Your task to perform on an android device: turn on improve location accuracy Image 0: 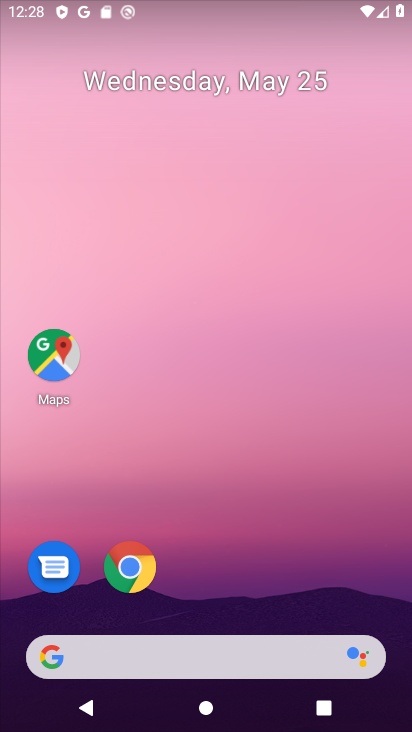
Step 0: drag from (225, 505) to (261, 138)
Your task to perform on an android device: turn on improve location accuracy Image 1: 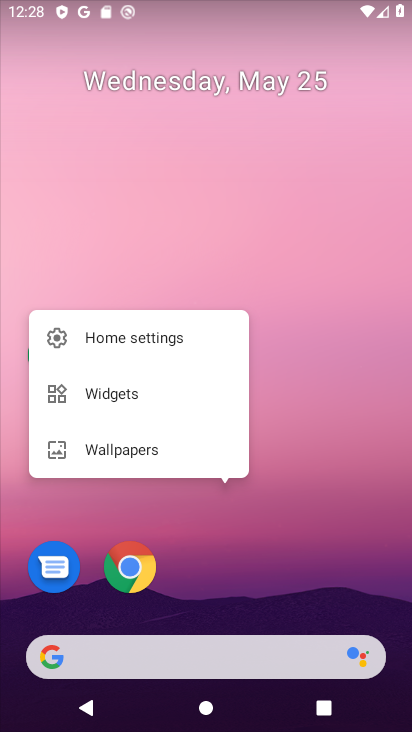
Step 1: drag from (272, 566) to (267, 36)
Your task to perform on an android device: turn on improve location accuracy Image 2: 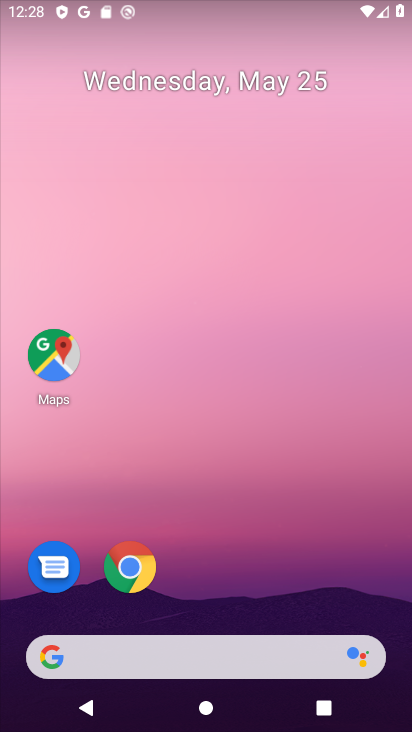
Step 2: drag from (223, 557) to (211, 8)
Your task to perform on an android device: turn on improve location accuracy Image 3: 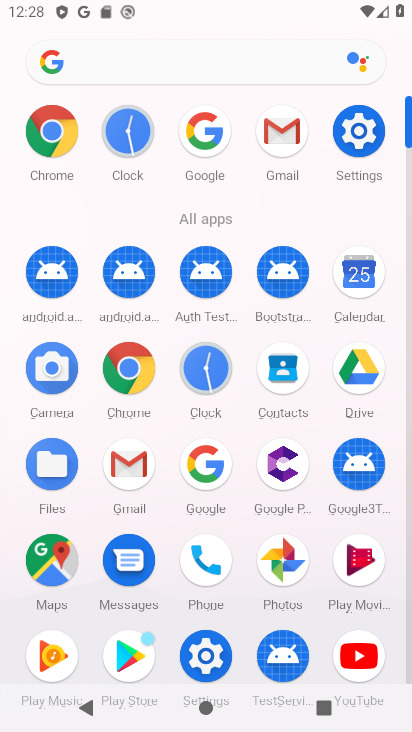
Step 3: click (206, 652)
Your task to perform on an android device: turn on improve location accuracy Image 4: 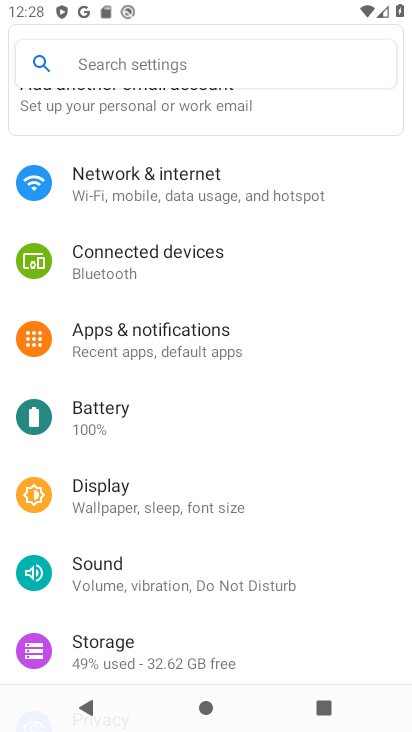
Step 4: drag from (171, 459) to (167, 364)
Your task to perform on an android device: turn on improve location accuracy Image 5: 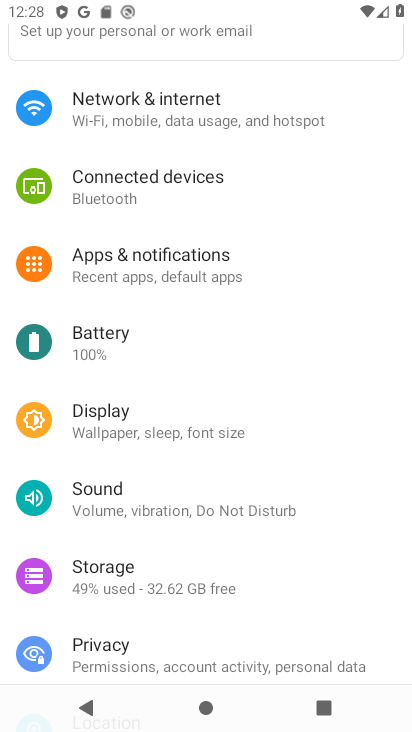
Step 5: drag from (161, 561) to (180, 461)
Your task to perform on an android device: turn on improve location accuracy Image 6: 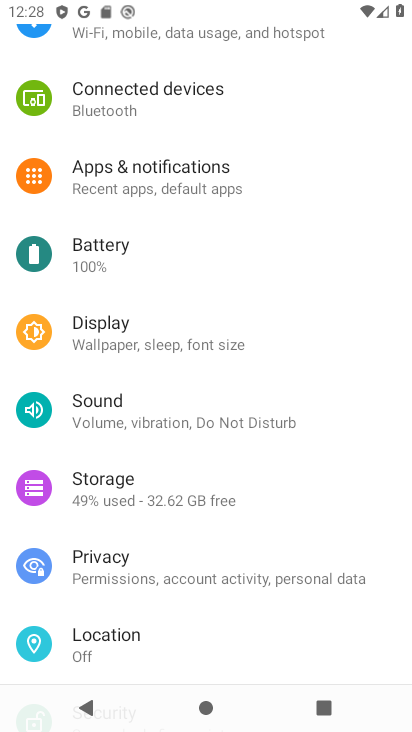
Step 6: drag from (154, 552) to (184, 469)
Your task to perform on an android device: turn on improve location accuracy Image 7: 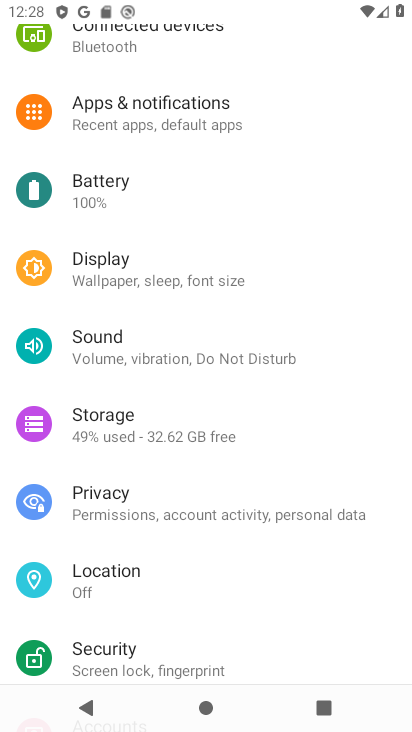
Step 7: click (108, 580)
Your task to perform on an android device: turn on improve location accuracy Image 8: 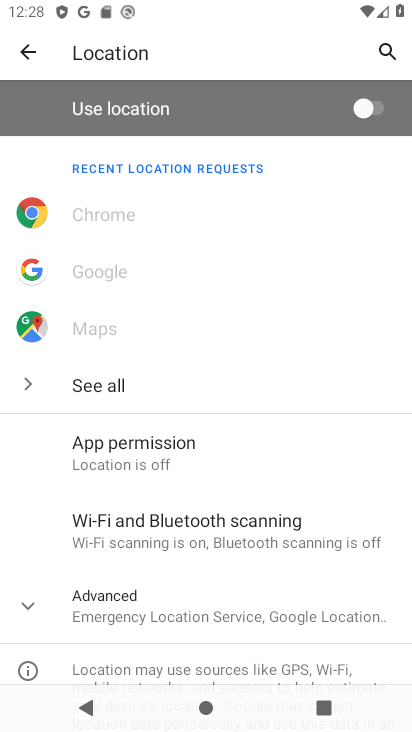
Step 8: click (130, 619)
Your task to perform on an android device: turn on improve location accuracy Image 9: 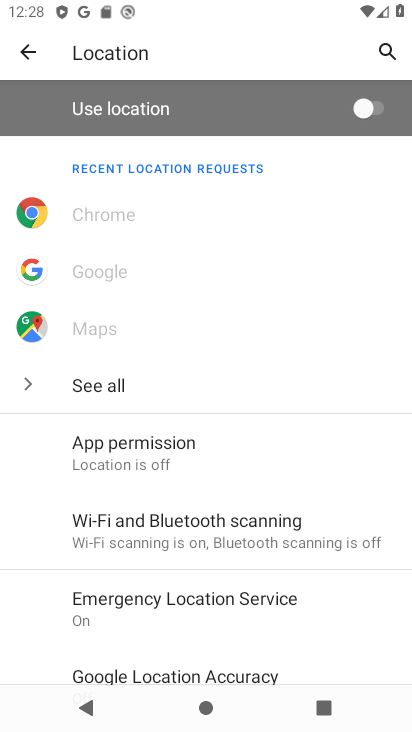
Step 9: drag from (157, 643) to (175, 548)
Your task to perform on an android device: turn on improve location accuracy Image 10: 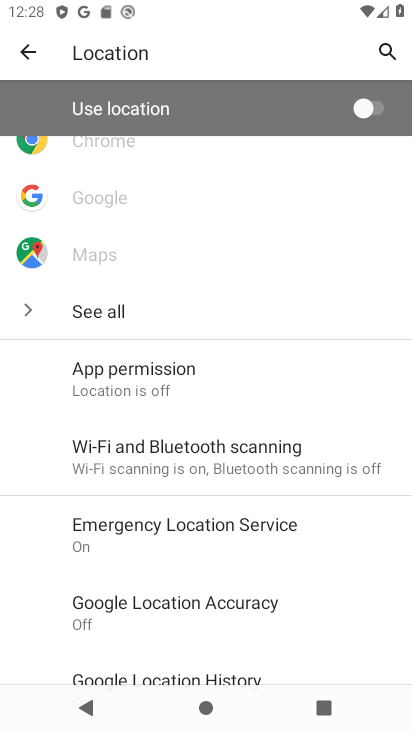
Step 10: click (185, 609)
Your task to perform on an android device: turn on improve location accuracy Image 11: 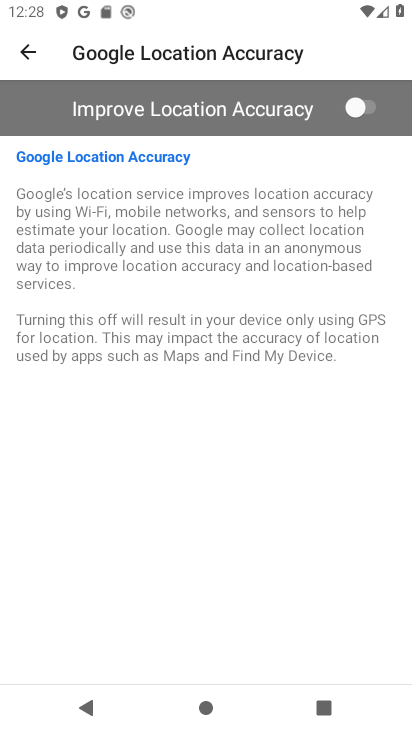
Step 11: click (359, 108)
Your task to perform on an android device: turn on improve location accuracy Image 12: 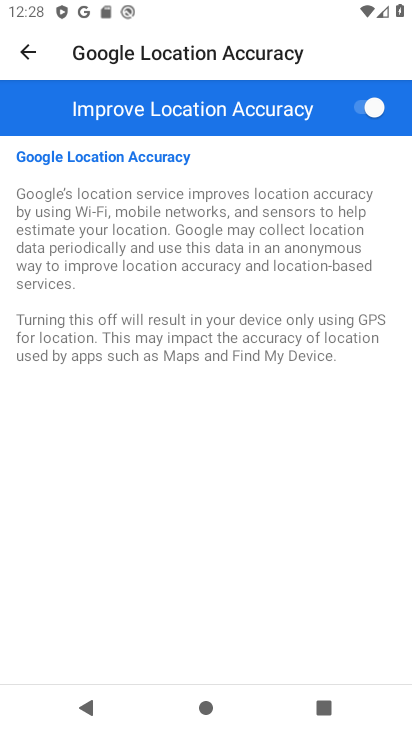
Step 12: task complete